Your task to perform on an android device: Go to internet settings Image 0: 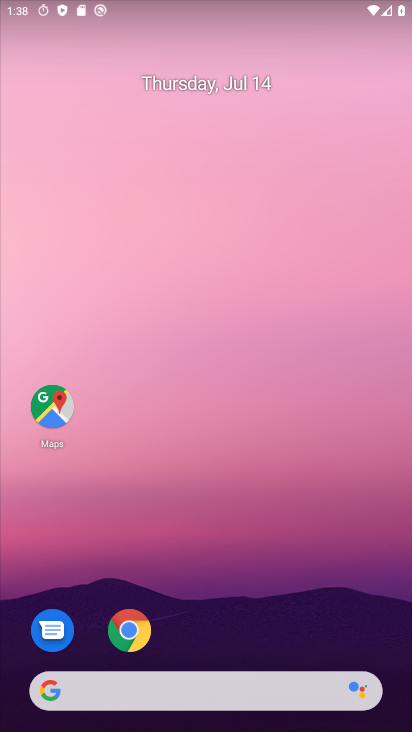
Step 0: drag from (204, 637) to (225, 328)
Your task to perform on an android device: Go to internet settings Image 1: 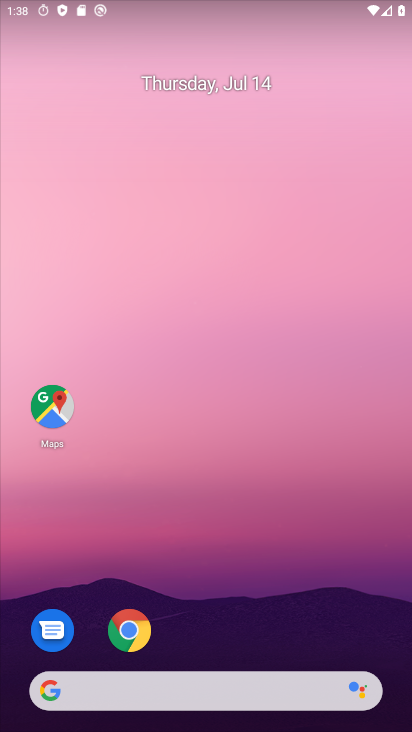
Step 1: drag from (188, 638) to (228, 94)
Your task to perform on an android device: Go to internet settings Image 2: 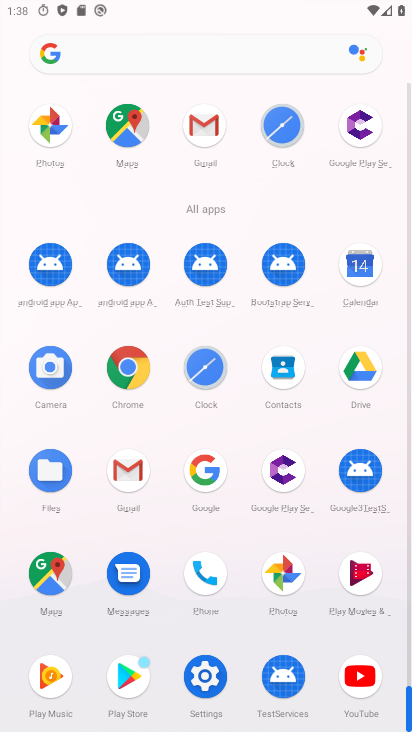
Step 2: click (210, 684)
Your task to perform on an android device: Go to internet settings Image 3: 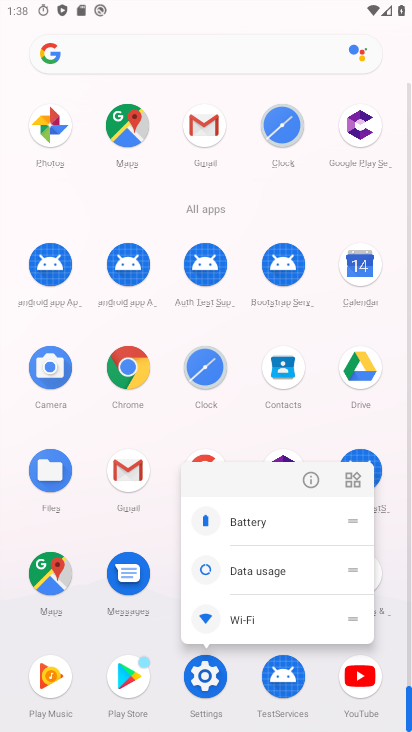
Step 3: click (315, 478)
Your task to perform on an android device: Go to internet settings Image 4: 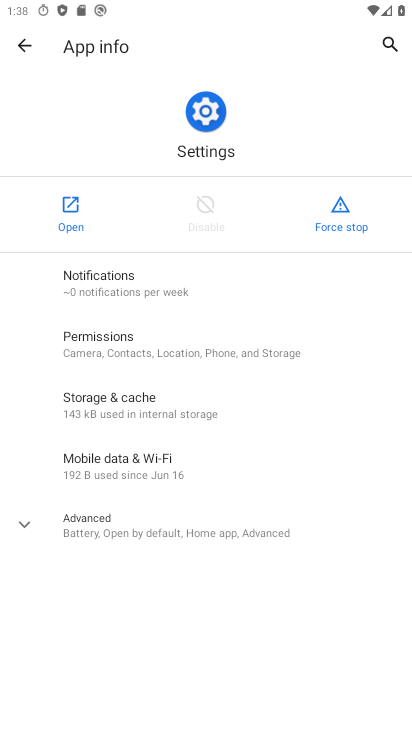
Step 4: click (62, 209)
Your task to perform on an android device: Go to internet settings Image 5: 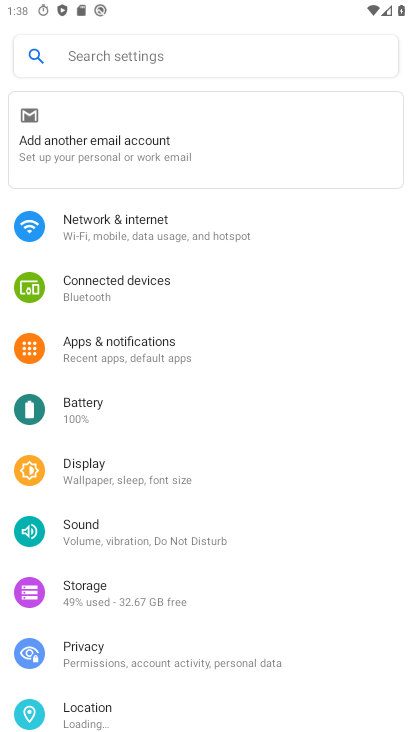
Step 5: drag from (130, 182) to (225, 726)
Your task to perform on an android device: Go to internet settings Image 6: 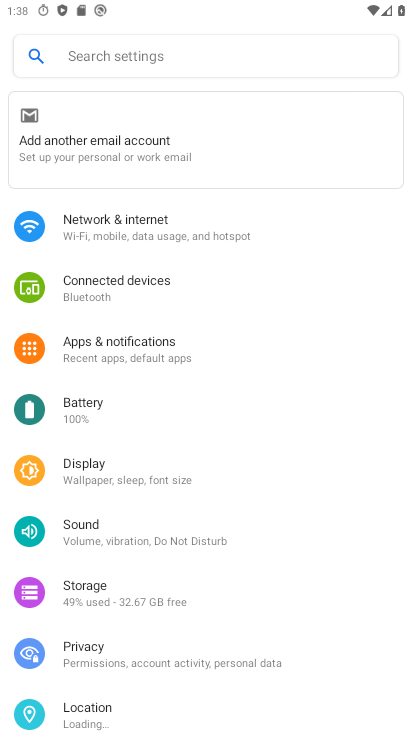
Step 6: drag from (220, 535) to (227, 186)
Your task to perform on an android device: Go to internet settings Image 7: 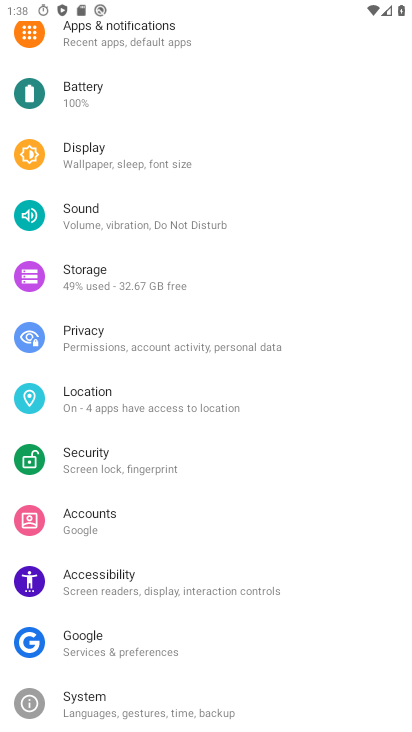
Step 7: drag from (173, 183) to (157, 693)
Your task to perform on an android device: Go to internet settings Image 8: 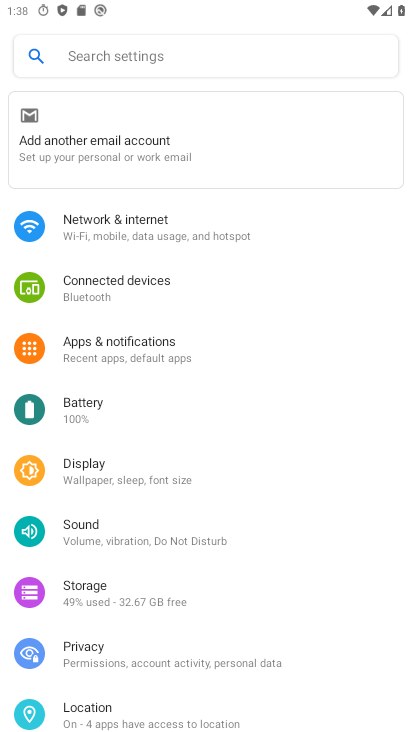
Step 8: click (118, 234)
Your task to perform on an android device: Go to internet settings Image 9: 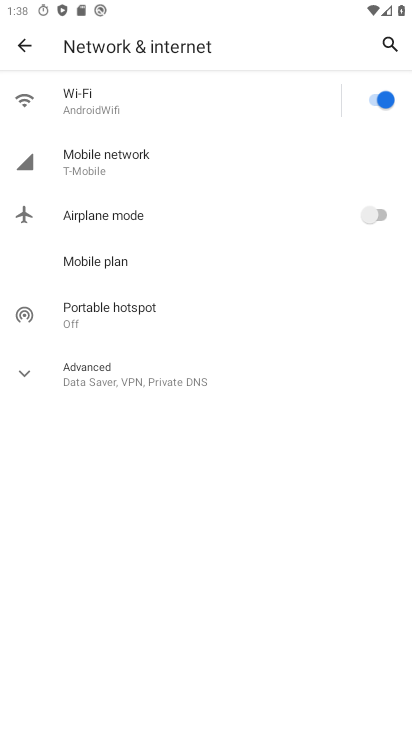
Step 9: task complete